Your task to perform on an android device: toggle wifi Image 0: 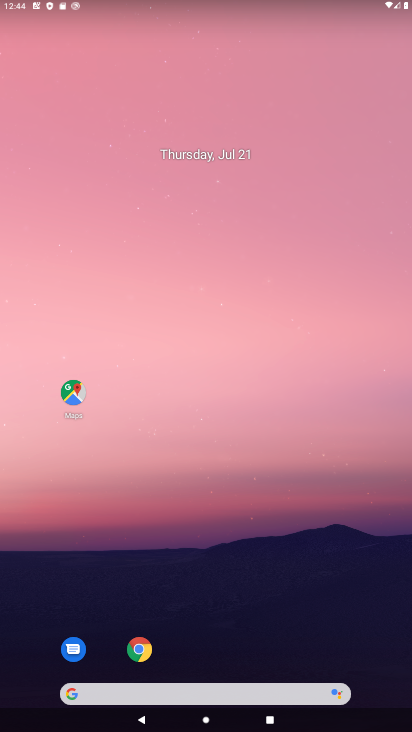
Step 0: drag from (224, 641) to (200, 194)
Your task to perform on an android device: toggle wifi Image 1: 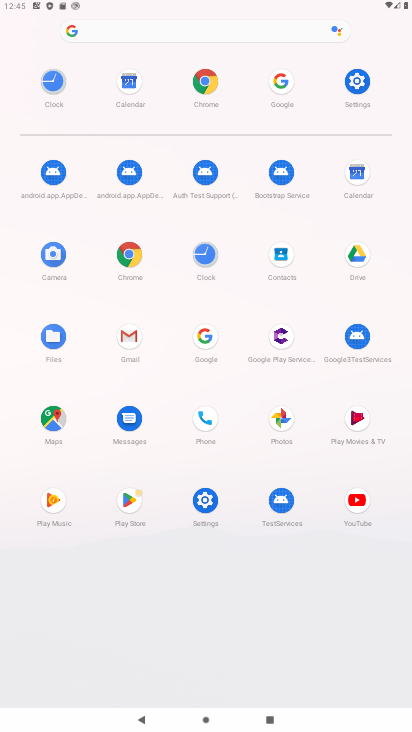
Step 1: click (358, 80)
Your task to perform on an android device: toggle wifi Image 2: 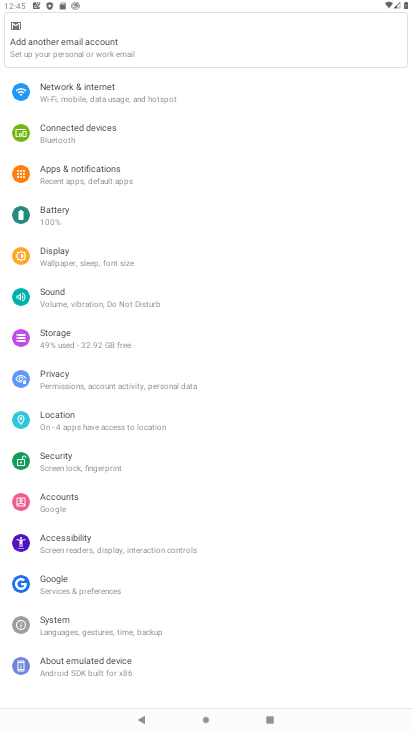
Step 2: click (67, 94)
Your task to perform on an android device: toggle wifi Image 3: 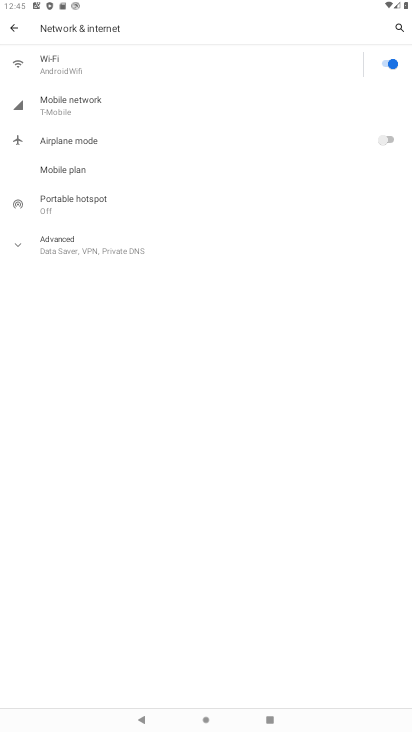
Step 3: click (58, 65)
Your task to perform on an android device: toggle wifi Image 4: 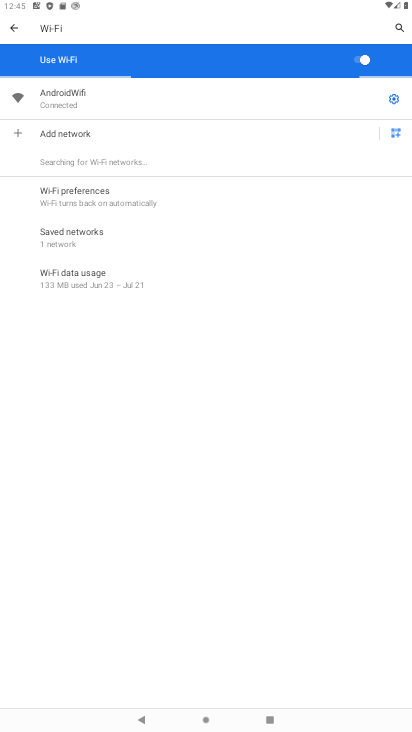
Step 4: click (368, 63)
Your task to perform on an android device: toggle wifi Image 5: 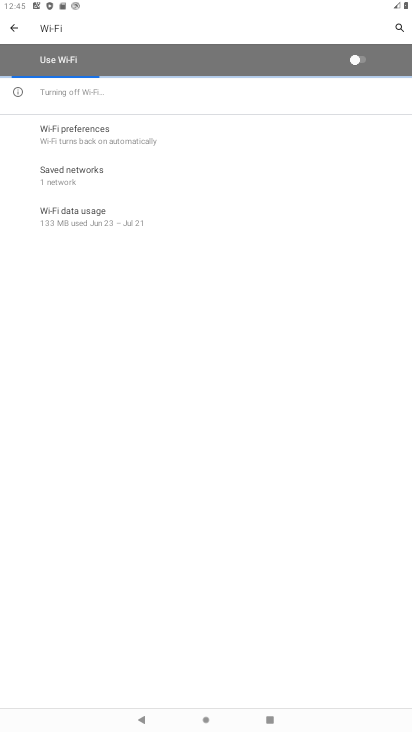
Step 5: task complete